Your task to perform on an android device: Show me recent news Image 0: 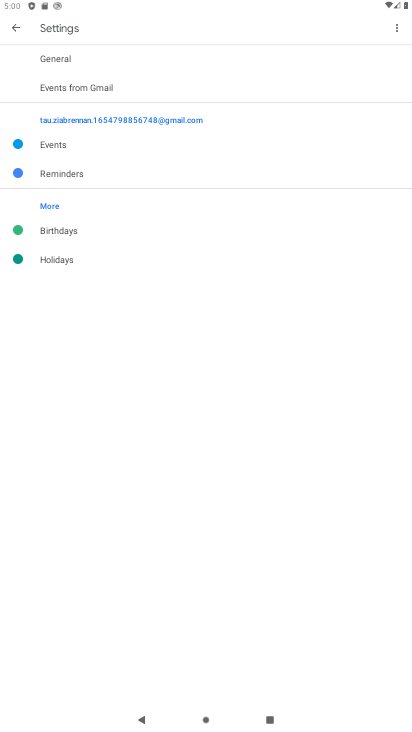
Step 0: press back button
Your task to perform on an android device: Show me recent news Image 1: 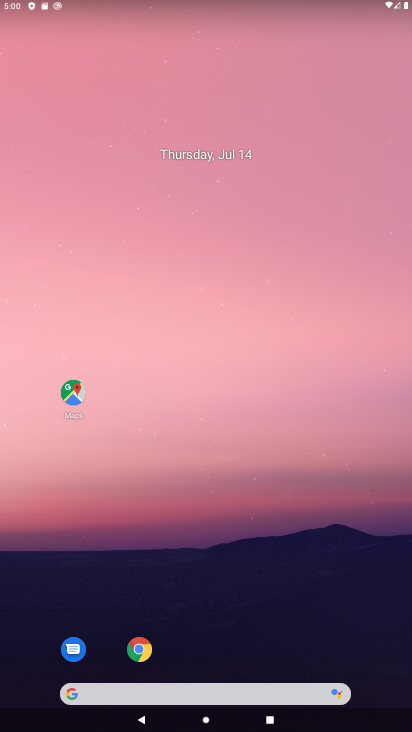
Step 1: drag from (243, 556) to (246, 82)
Your task to perform on an android device: Show me recent news Image 2: 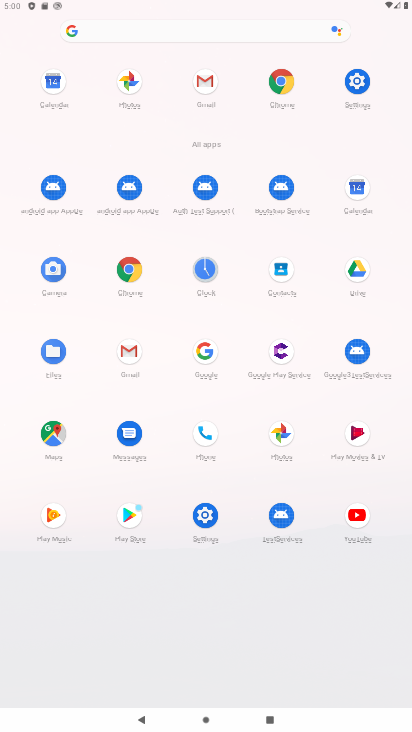
Step 2: click (122, 34)
Your task to perform on an android device: Show me recent news Image 3: 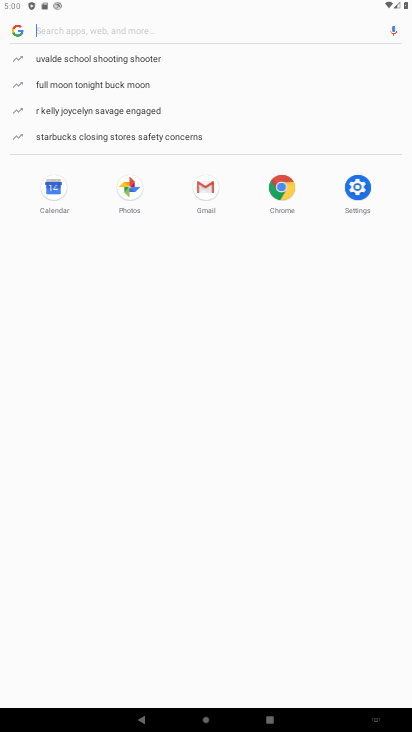
Step 3: type "recent news"
Your task to perform on an android device: Show me recent news Image 4: 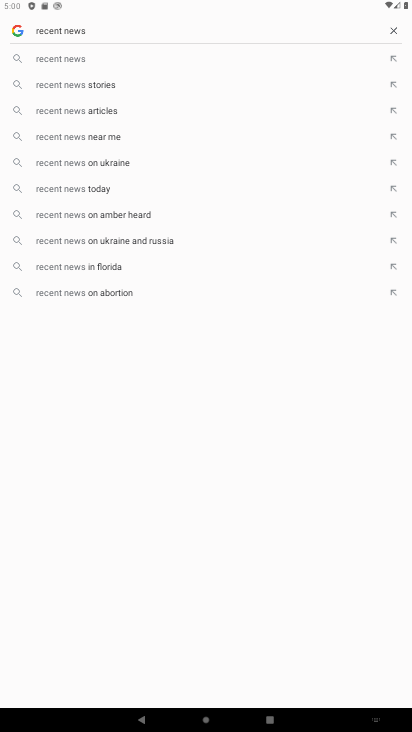
Step 4: click (87, 62)
Your task to perform on an android device: Show me recent news Image 5: 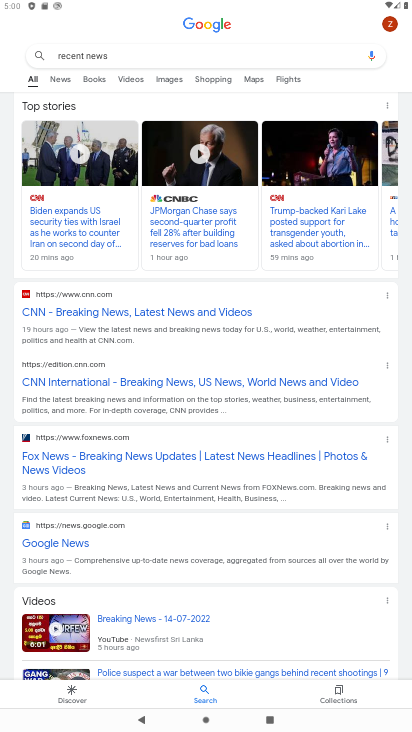
Step 5: task complete